Your task to perform on an android device: Open calendar and show me the first week of next month Image 0: 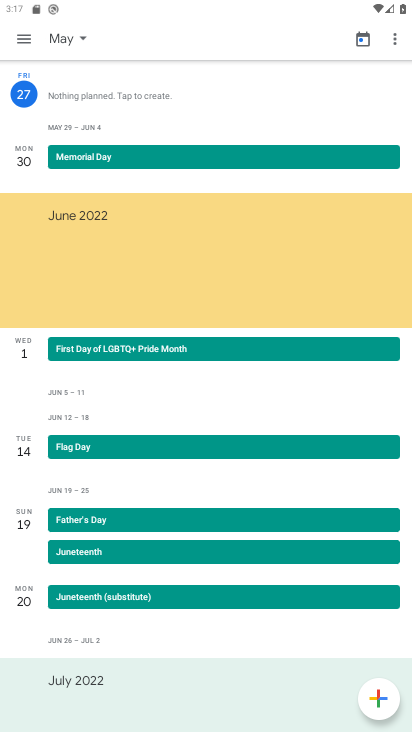
Step 0: press home button
Your task to perform on an android device: Open calendar and show me the first week of next month Image 1: 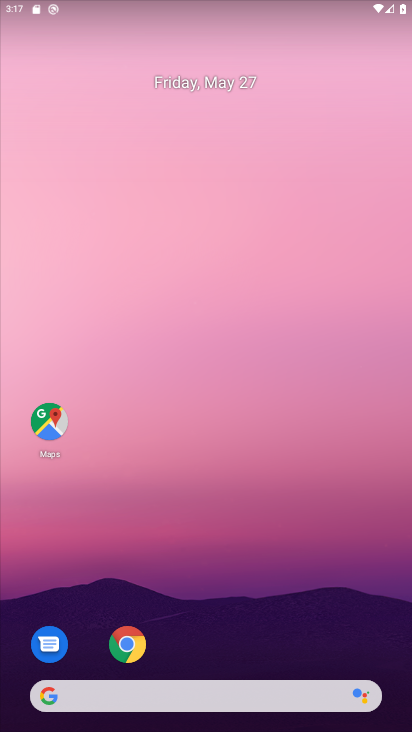
Step 1: drag from (274, 491) to (139, 40)
Your task to perform on an android device: Open calendar and show me the first week of next month Image 2: 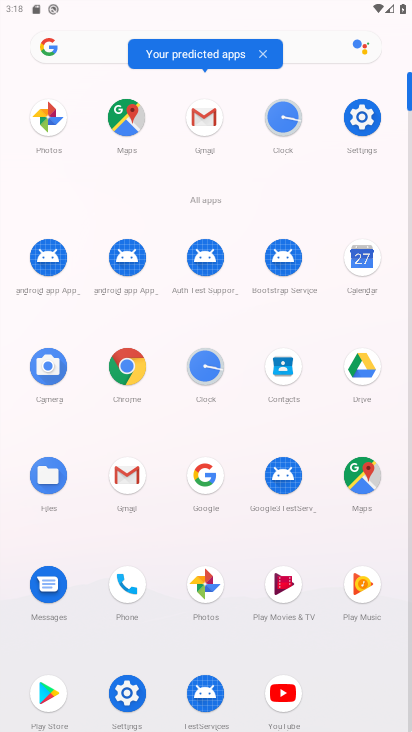
Step 2: click (357, 264)
Your task to perform on an android device: Open calendar and show me the first week of next month Image 3: 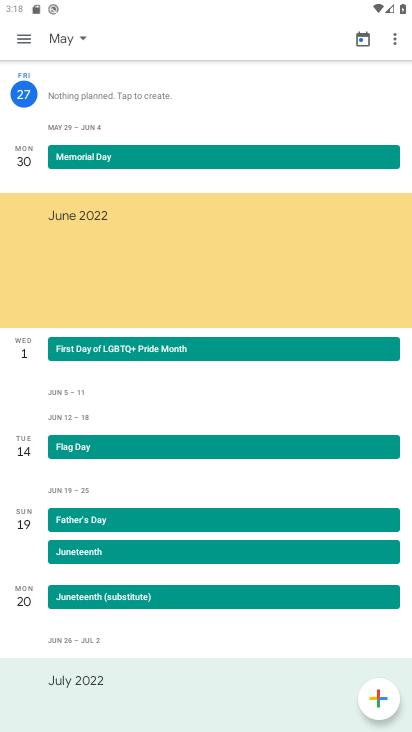
Step 3: click (22, 35)
Your task to perform on an android device: Open calendar and show me the first week of next month Image 4: 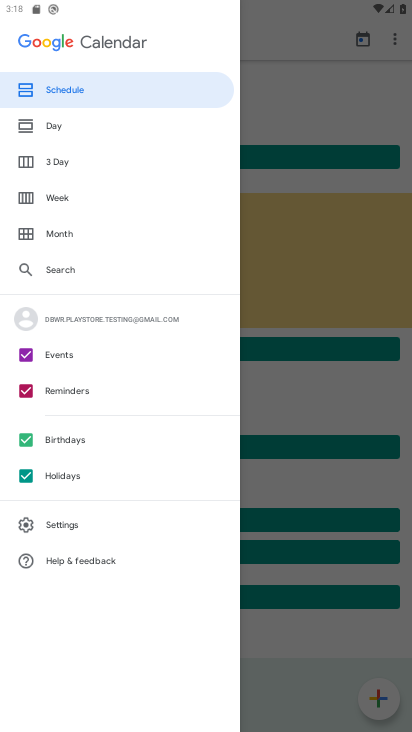
Step 4: click (72, 191)
Your task to perform on an android device: Open calendar and show me the first week of next month Image 5: 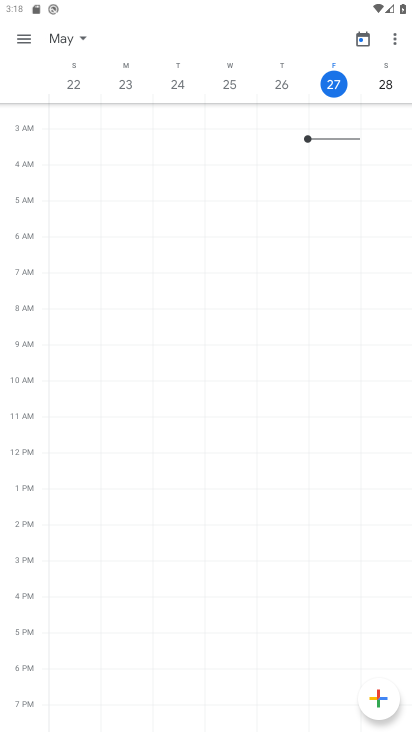
Step 5: click (83, 35)
Your task to perform on an android device: Open calendar and show me the first week of next month Image 6: 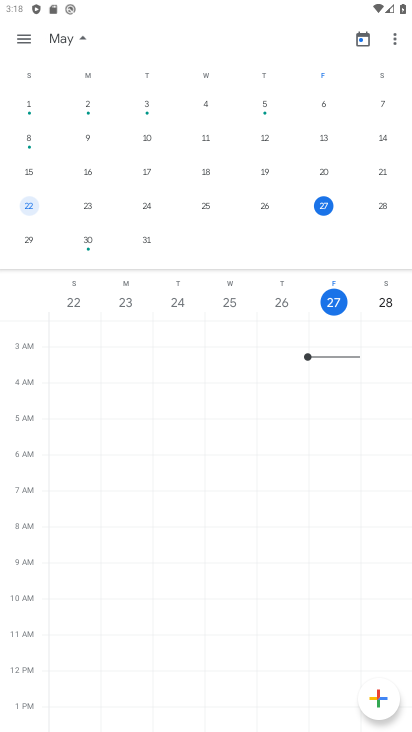
Step 6: drag from (348, 166) to (19, 259)
Your task to perform on an android device: Open calendar and show me the first week of next month Image 7: 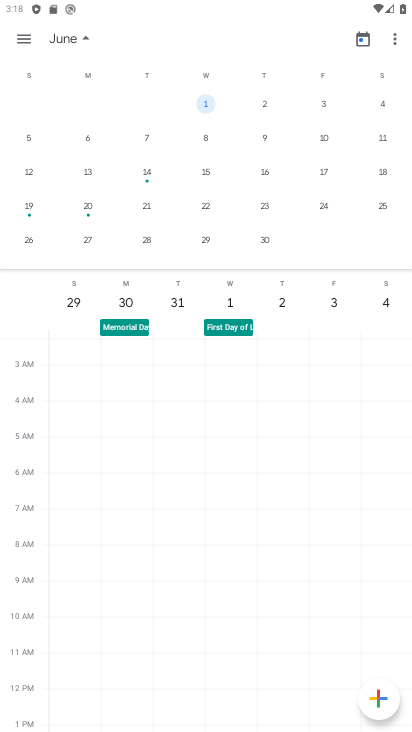
Step 7: click (39, 137)
Your task to perform on an android device: Open calendar and show me the first week of next month Image 8: 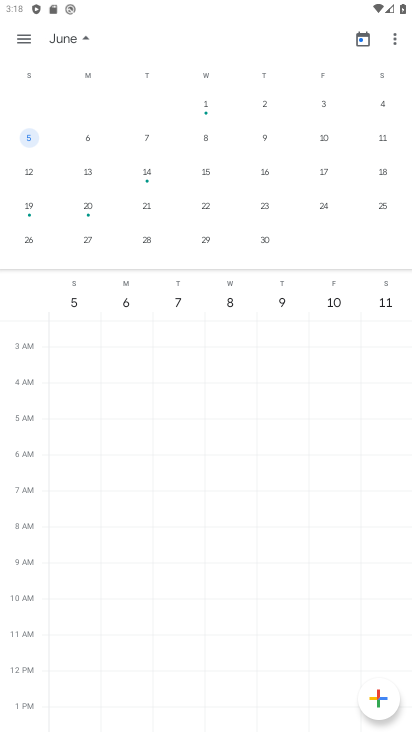
Step 8: task complete